Your task to perform on an android device: Search for a new highlighter Image 0: 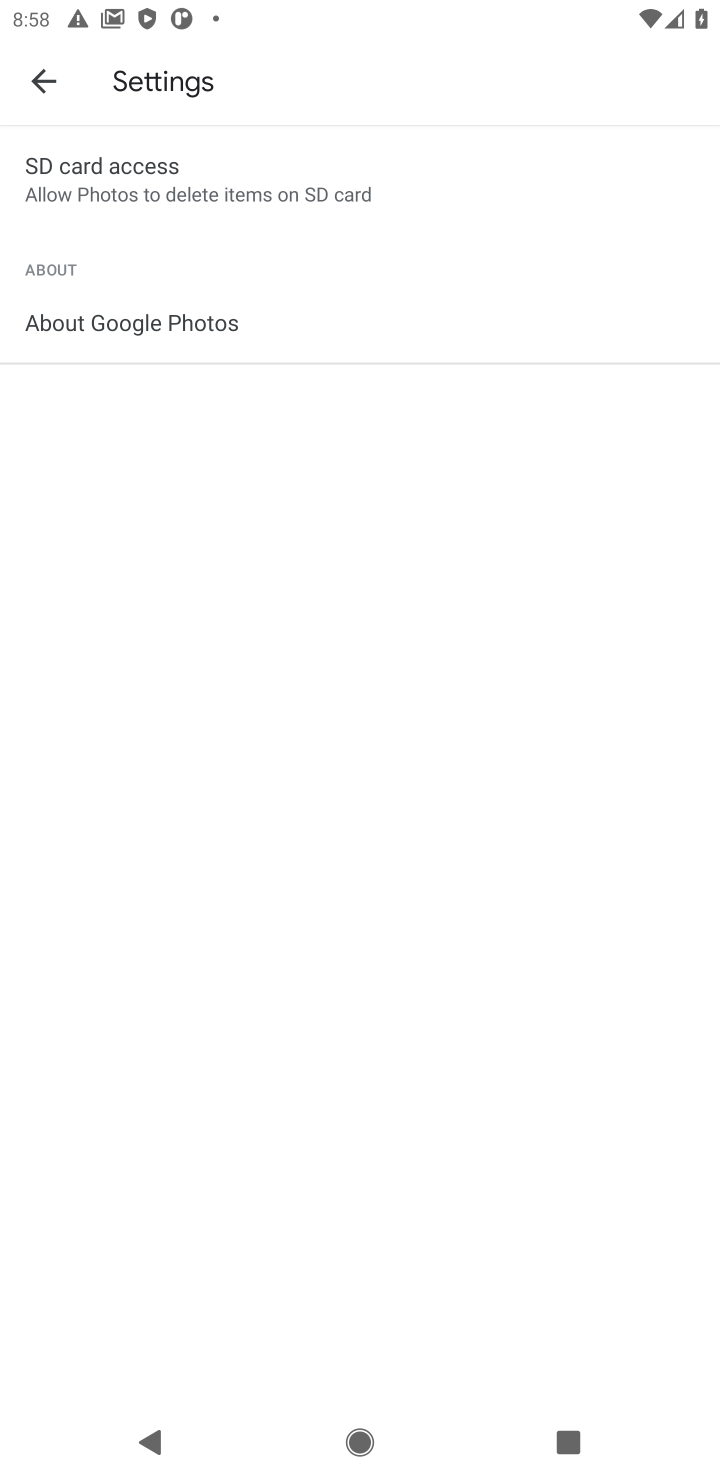
Step 0: press home button
Your task to perform on an android device: Search for a new highlighter Image 1: 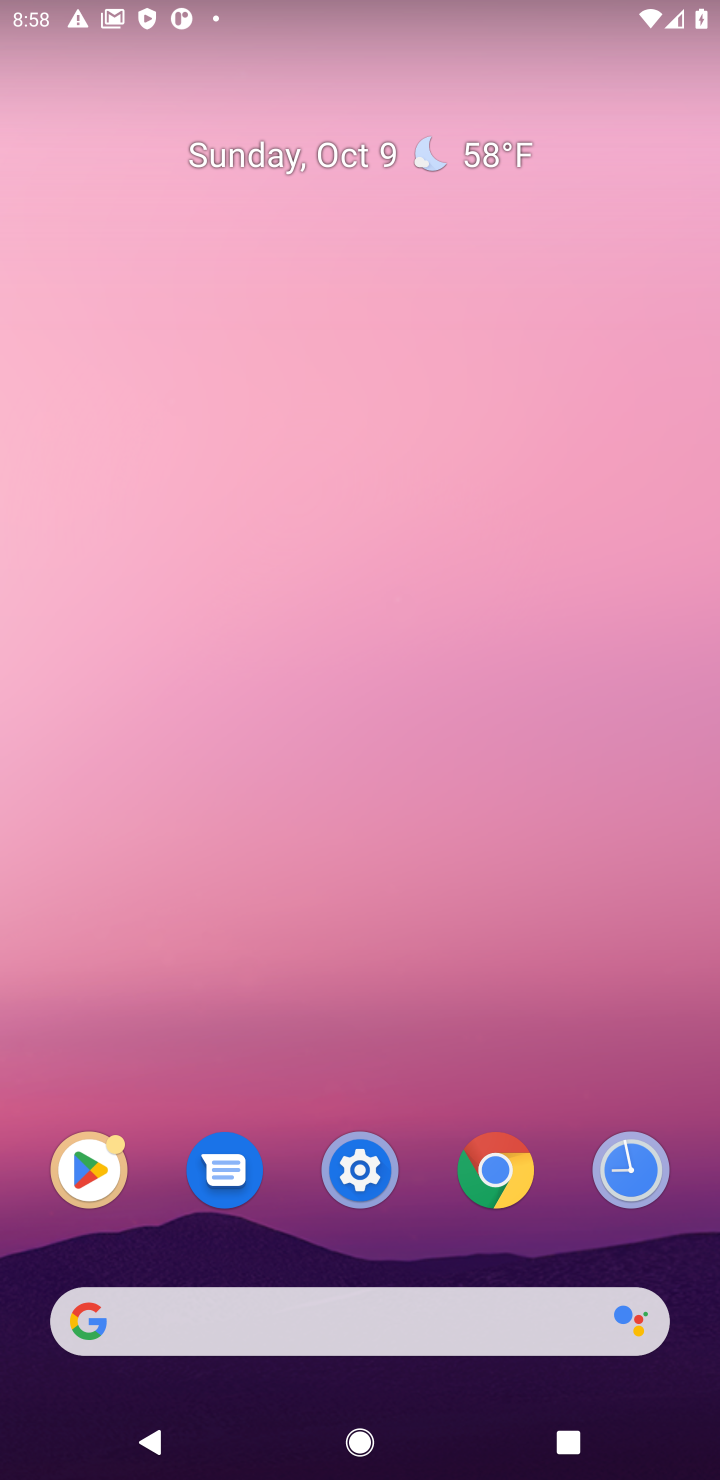
Step 1: click (344, 1342)
Your task to perform on an android device: Search for a new highlighter Image 2: 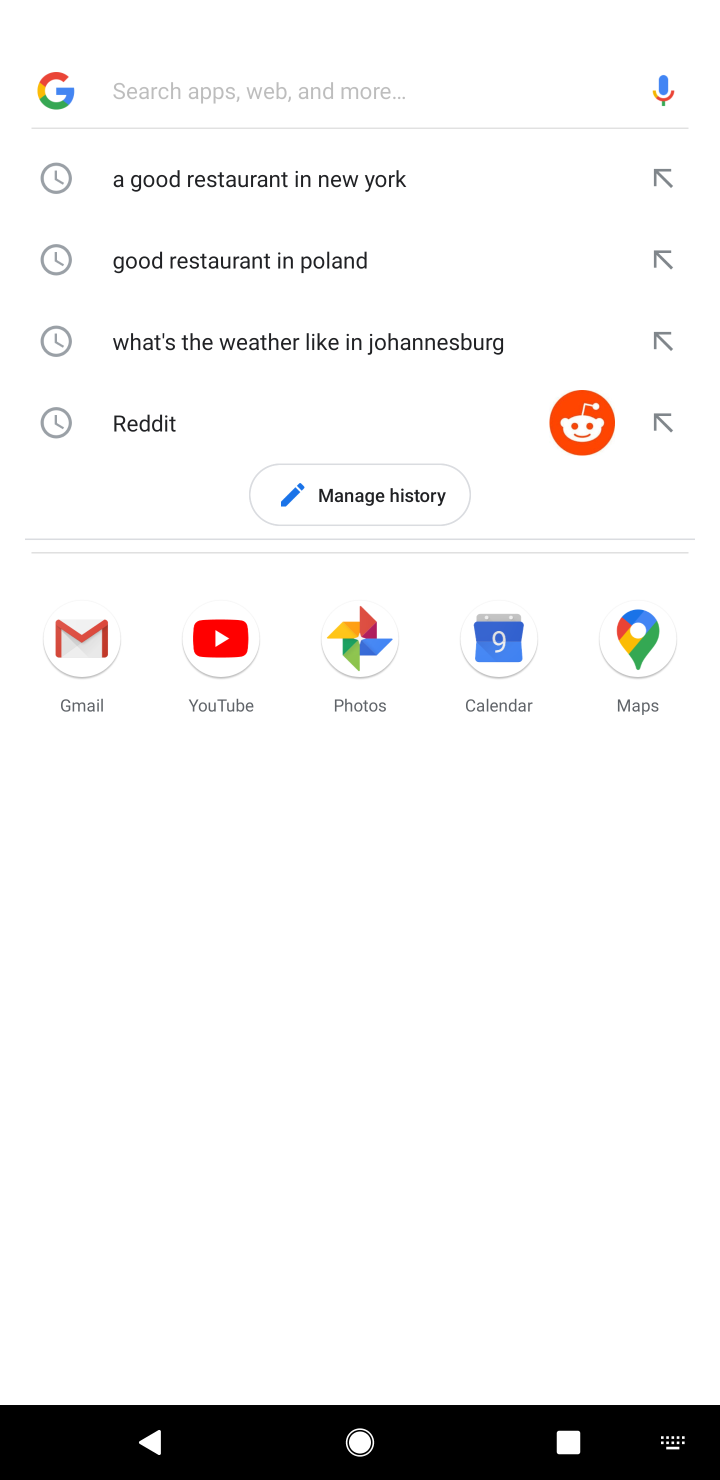
Step 2: type "Search for a new highlighter"
Your task to perform on an android device: Search for a new highlighter Image 3: 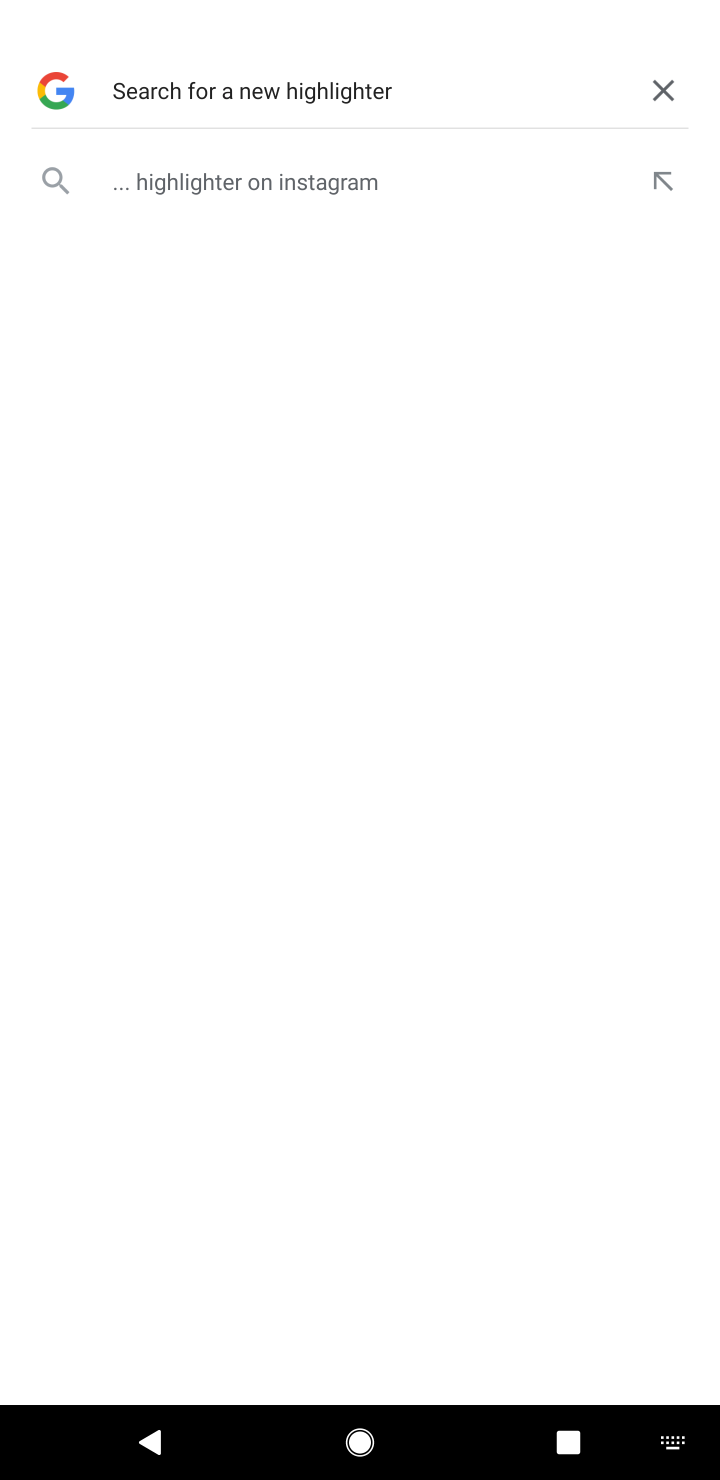
Step 3: click (267, 175)
Your task to perform on an android device: Search for a new highlighter Image 4: 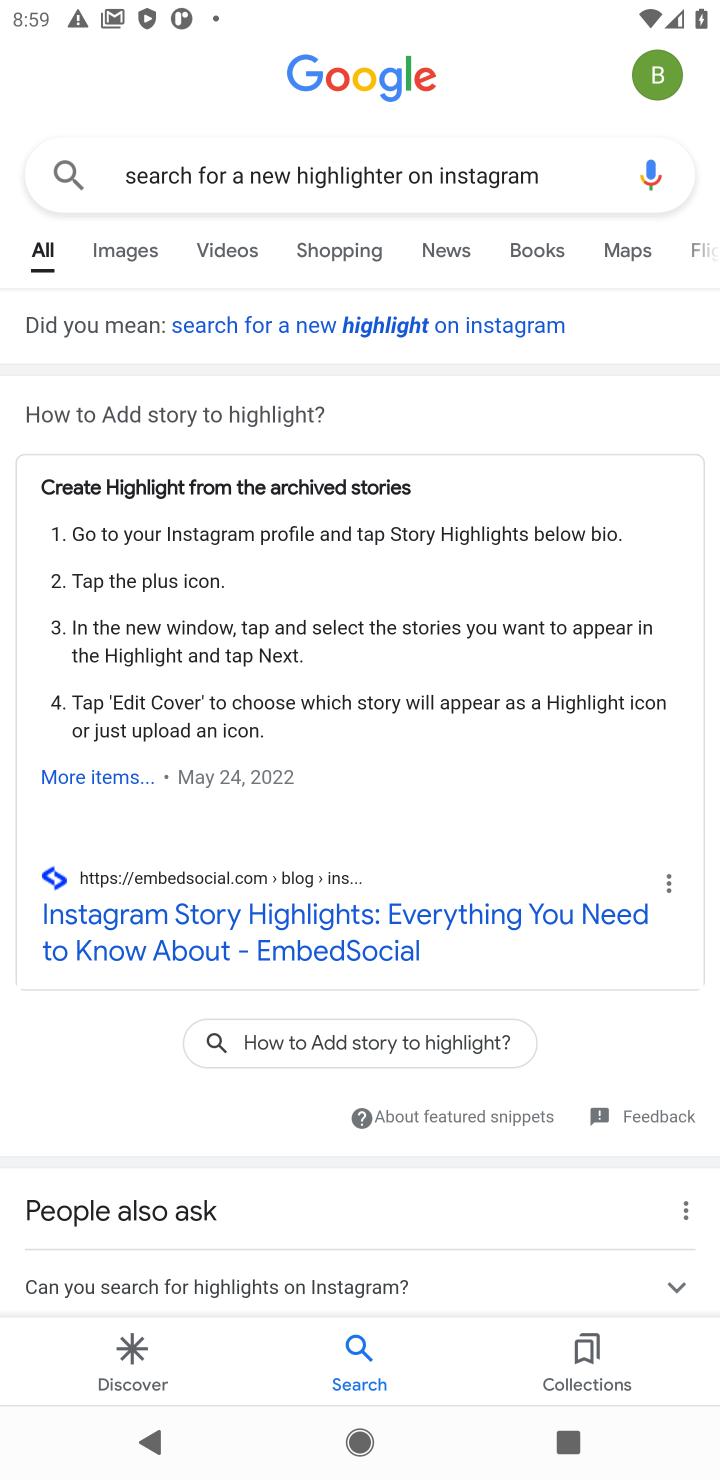
Step 4: task complete